Your task to perform on an android device: delete the emails in spam in the gmail app Image 0: 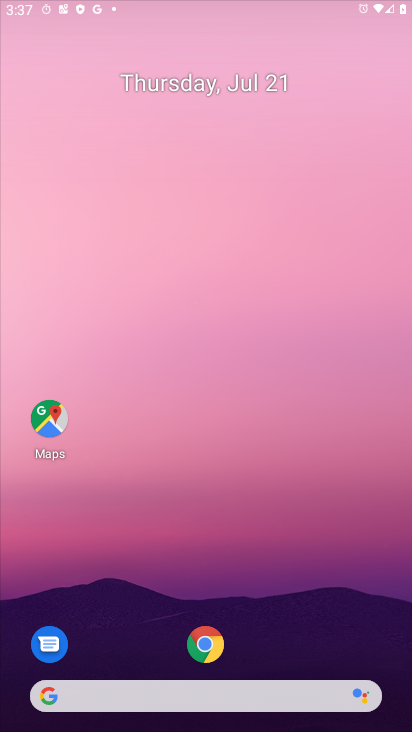
Step 0: press home button
Your task to perform on an android device: delete the emails in spam in the gmail app Image 1: 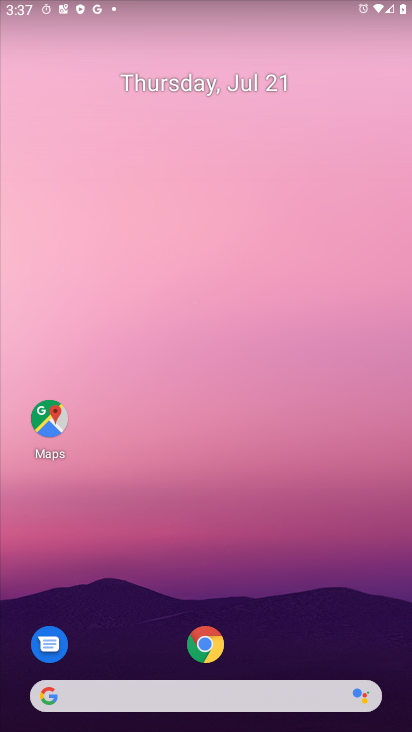
Step 1: press home button
Your task to perform on an android device: delete the emails in spam in the gmail app Image 2: 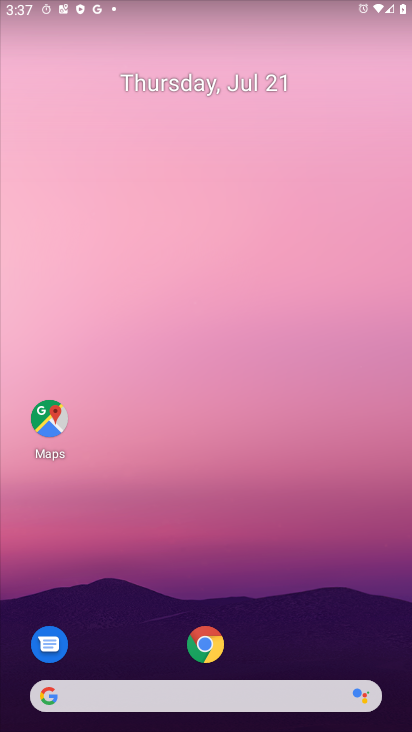
Step 2: drag from (314, 594) to (408, 55)
Your task to perform on an android device: delete the emails in spam in the gmail app Image 3: 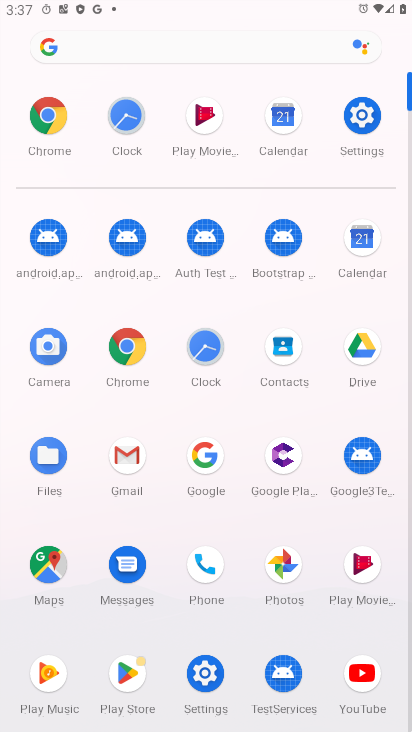
Step 3: click (123, 457)
Your task to perform on an android device: delete the emails in spam in the gmail app Image 4: 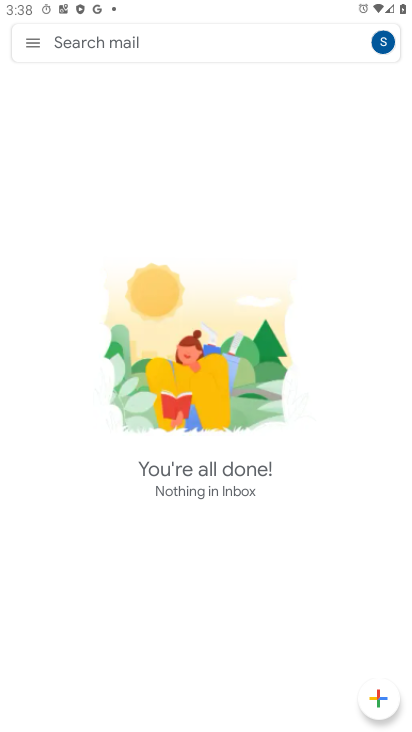
Step 4: click (34, 43)
Your task to perform on an android device: delete the emails in spam in the gmail app Image 5: 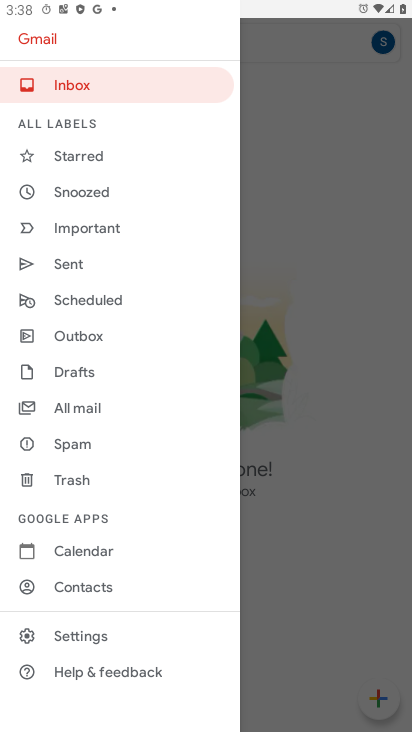
Step 5: click (92, 443)
Your task to perform on an android device: delete the emails in spam in the gmail app Image 6: 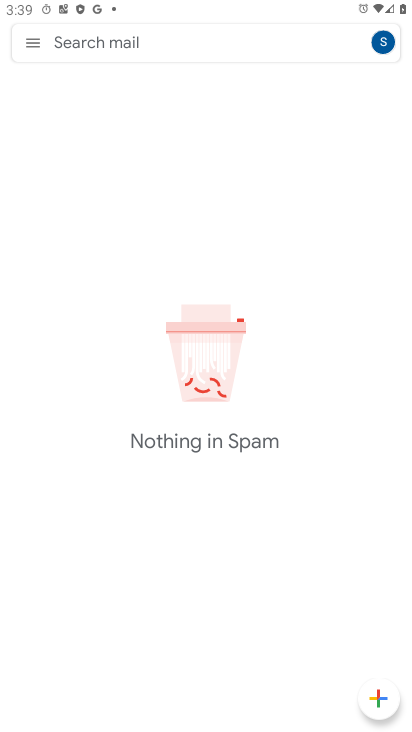
Step 6: task complete